Your task to perform on an android device: add a contact Image 0: 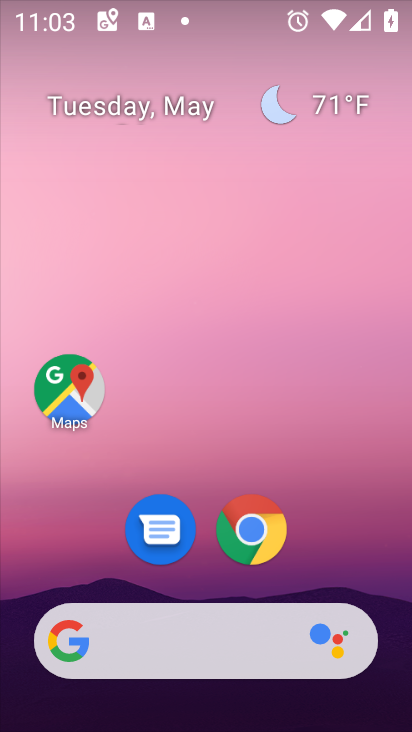
Step 0: drag from (189, 595) to (227, 4)
Your task to perform on an android device: add a contact Image 1: 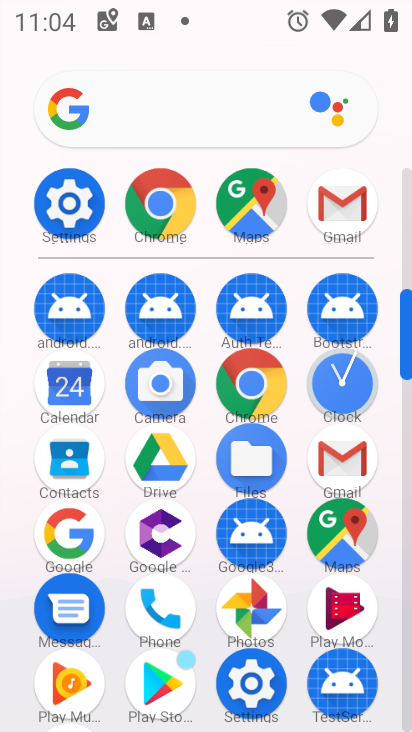
Step 1: click (75, 485)
Your task to perform on an android device: add a contact Image 2: 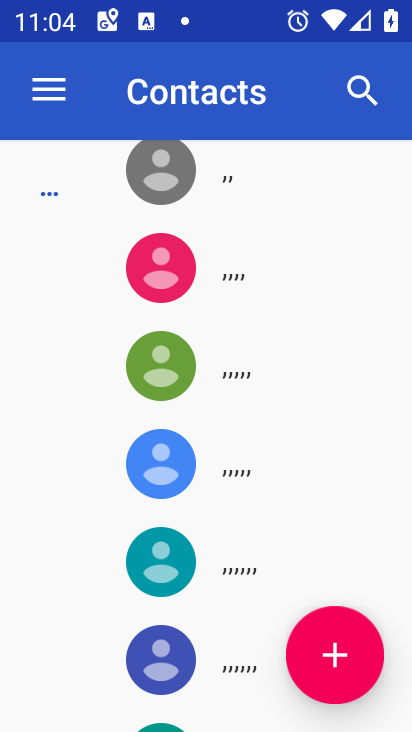
Step 2: click (336, 683)
Your task to perform on an android device: add a contact Image 3: 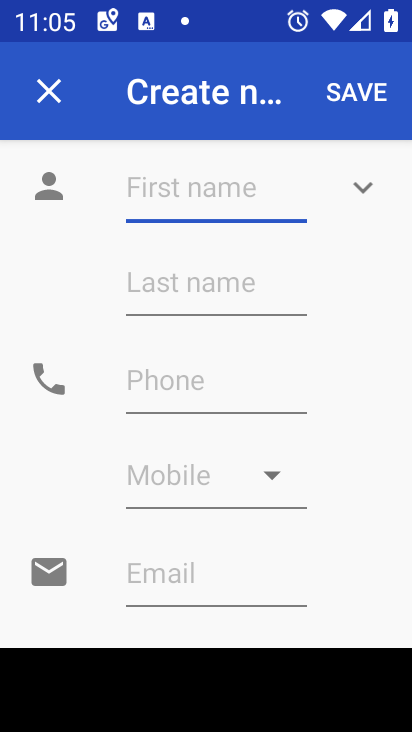
Step 3: type "sdghgfh"
Your task to perform on an android device: add a contact Image 4: 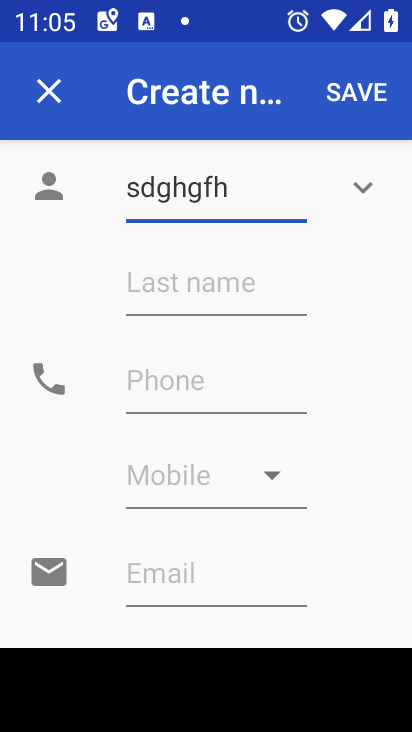
Step 4: click (161, 397)
Your task to perform on an android device: add a contact Image 5: 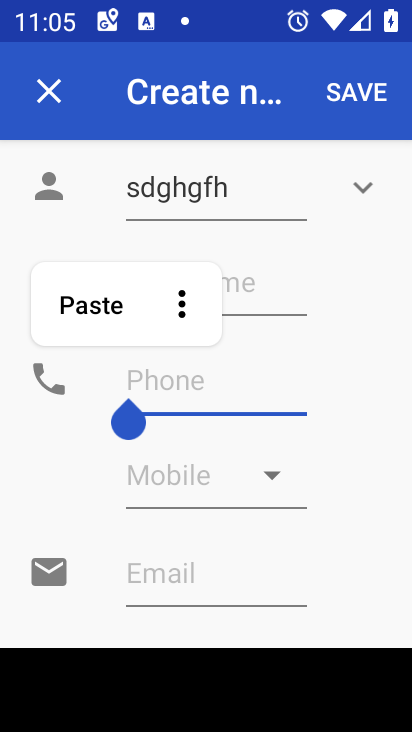
Step 5: type "876765670"
Your task to perform on an android device: add a contact Image 6: 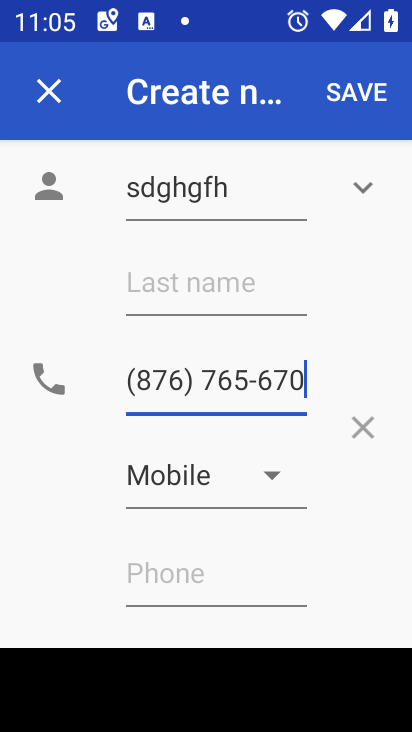
Step 6: click (365, 105)
Your task to perform on an android device: add a contact Image 7: 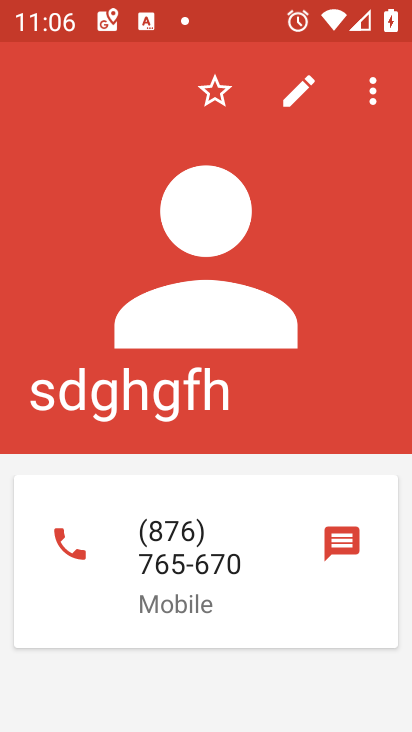
Step 7: task complete